Your task to perform on an android device: Open battery settings Image 0: 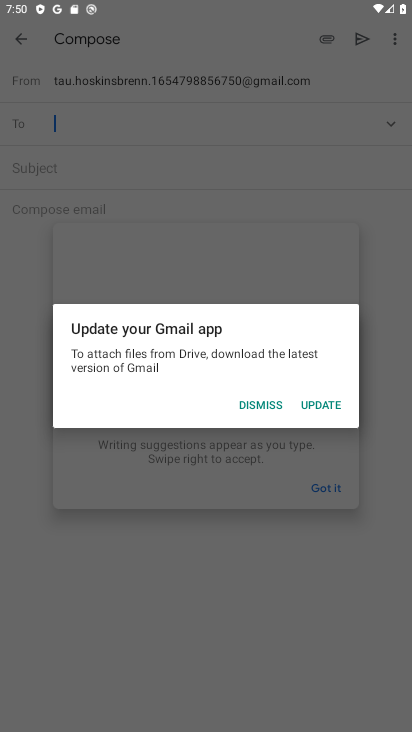
Step 0: press home button
Your task to perform on an android device: Open battery settings Image 1: 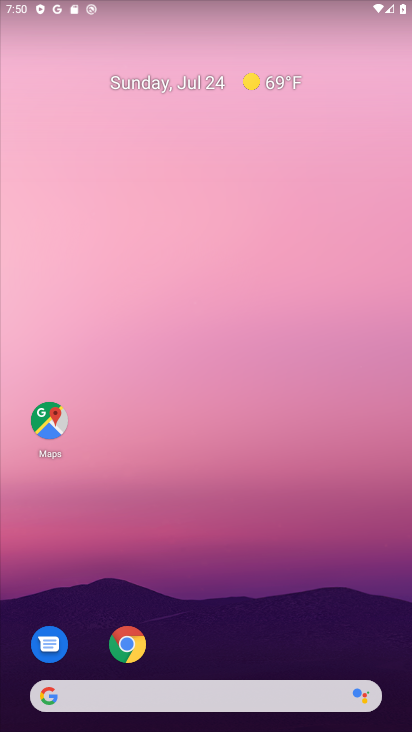
Step 1: drag from (168, 680) to (254, 277)
Your task to perform on an android device: Open battery settings Image 2: 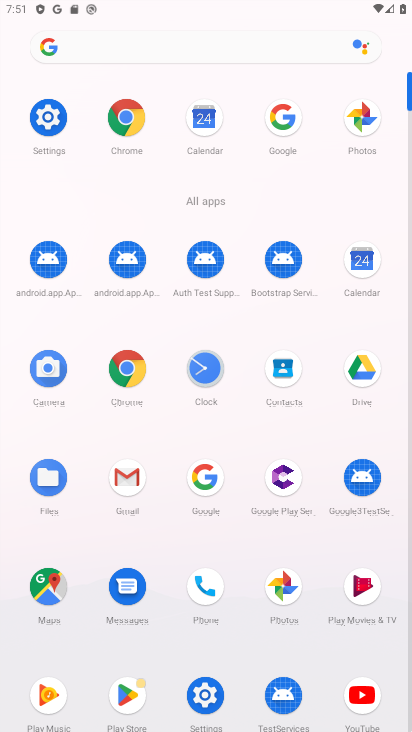
Step 2: click (213, 699)
Your task to perform on an android device: Open battery settings Image 3: 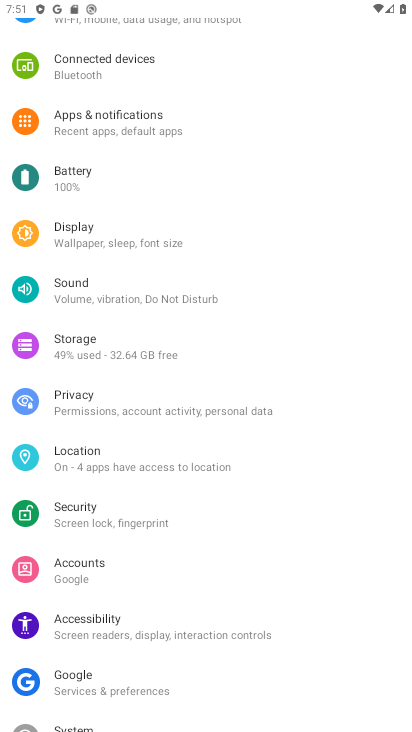
Step 3: click (80, 185)
Your task to perform on an android device: Open battery settings Image 4: 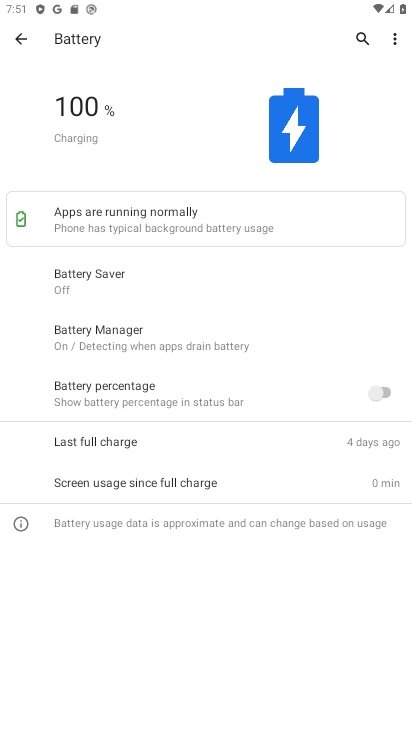
Step 4: task complete